Your task to perform on an android device: Show me popular games on the Play Store Image 0: 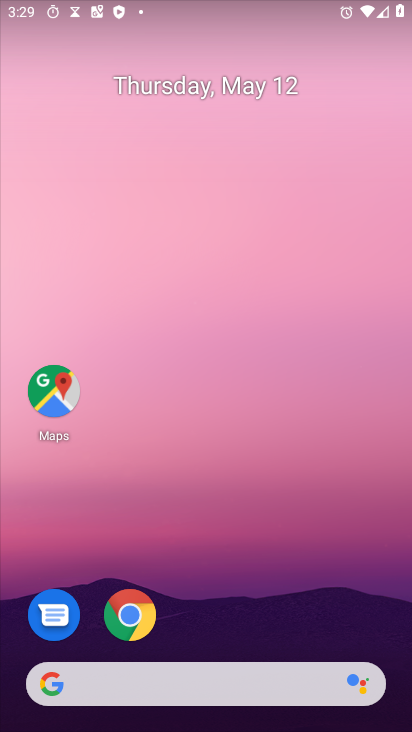
Step 0: drag from (35, 568) to (274, 169)
Your task to perform on an android device: Show me popular games on the Play Store Image 1: 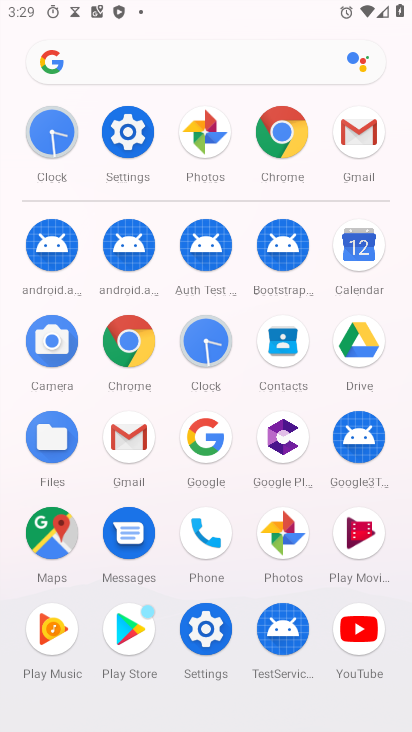
Step 1: click (122, 642)
Your task to perform on an android device: Show me popular games on the Play Store Image 2: 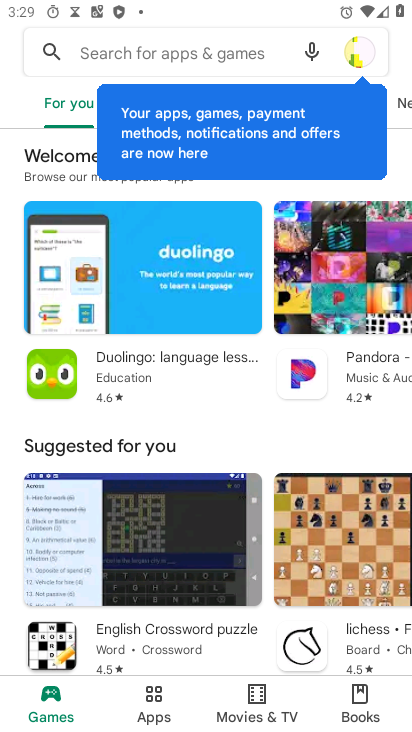
Step 2: click (51, 696)
Your task to perform on an android device: Show me popular games on the Play Store Image 3: 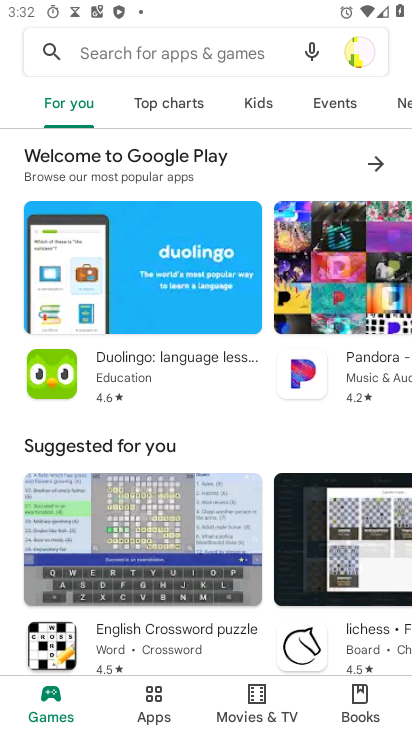
Step 3: task complete